Your task to perform on an android device: allow notifications from all sites in the chrome app Image 0: 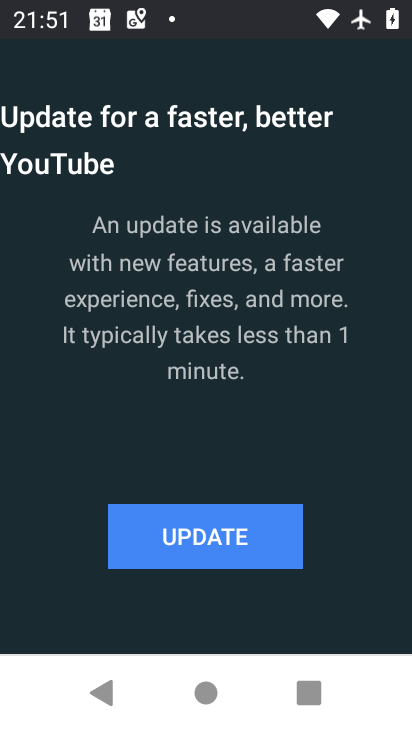
Step 0: press back button
Your task to perform on an android device: allow notifications from all sites in the chrome app Image 1: 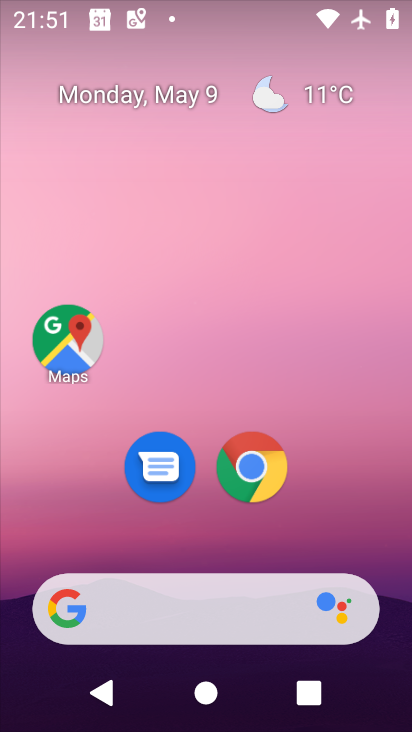
Step 1: drag from (363, 427) to (357, 109)
Your task to perform on an android device: allow notifications from all sites in the chrome app Image 2: 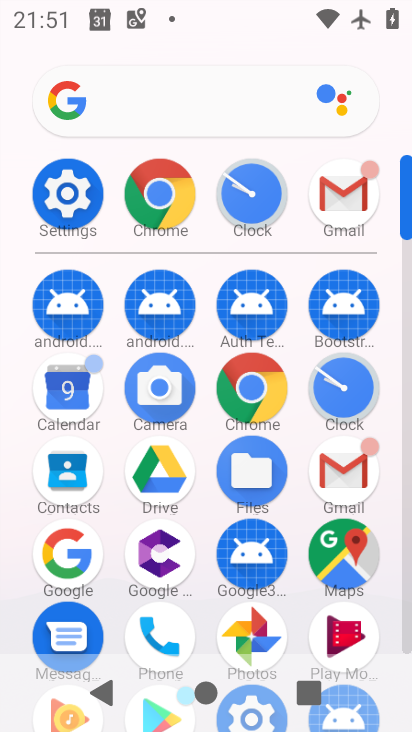
Step 2: click (168, 197)
Your task to perform on an android device: allow notifications from all sites in the chrome app Image 3: 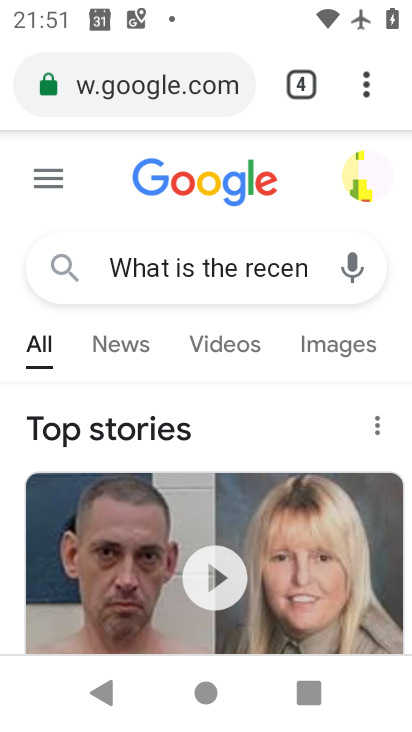
Step 3: click (355, 87)
Your task to perform on an android device: allow notifications from all sites in the chrome app Image 4: 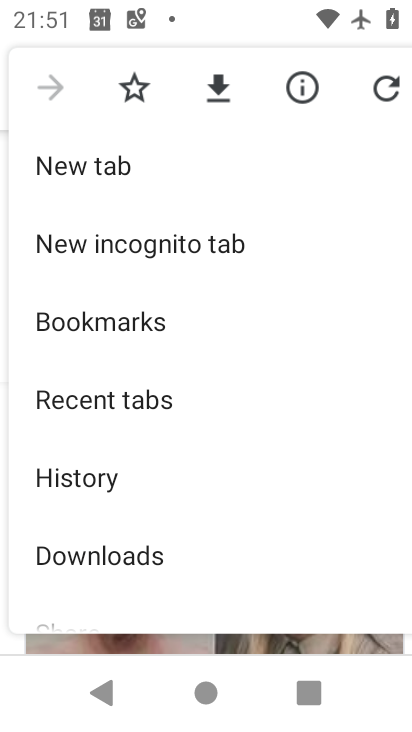
Step 4: drag from (232, 516) to (253, 184)
Your task to perform on an android device: allow notifications from all sites in the chrome app Image 5: 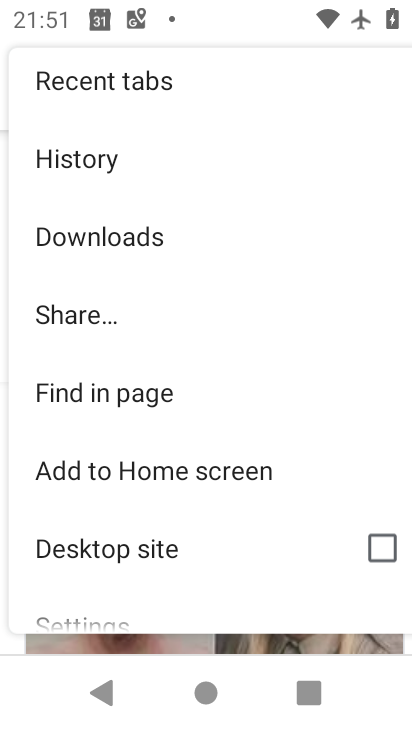
Step 5: drag from (201, 566) to (212, 351)
Your task to perform on an android device: allow notifications from all sites in the chrome app Image 6: 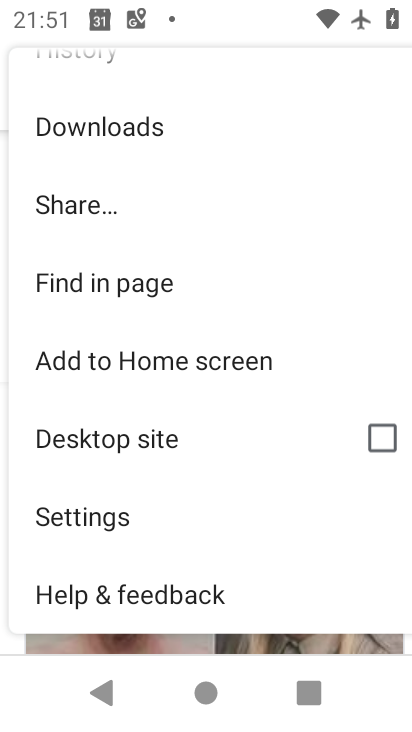
Step 6: click (90, 512)
Your task to perform on an android device: allow notifications from all sites in the chrome app Image 7: 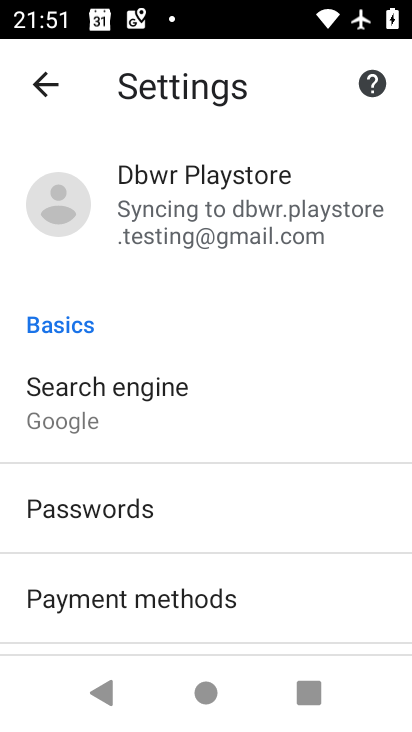
Step 7: drag from (198, 584) to (265, 248)
Your task to perform on an android device: allow notifications from all sites in the chrome app Image 8: 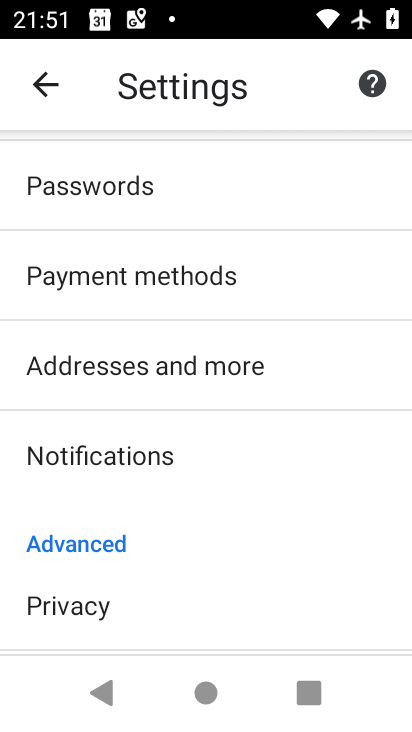
Step 8: drag from (224, 534) to (266, 275)
Your task to perform on an android device: allow notifications from all sites in the chrome app Image 9: 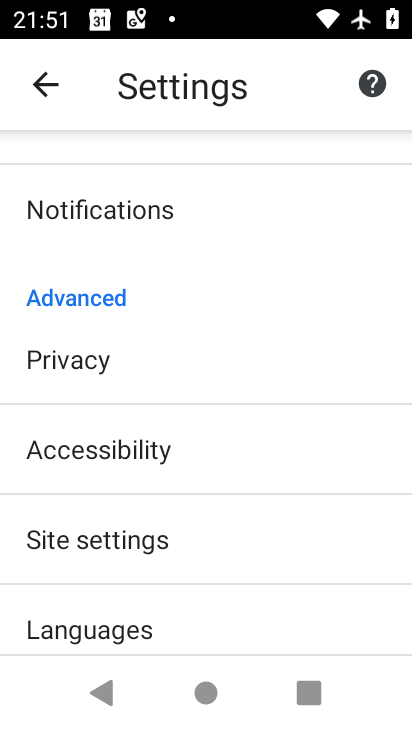
Step 9: drag from (128, 583) to (197, 320)
Your task to perform on an android device: allow notifications from all sites in the chrome app Image 10: 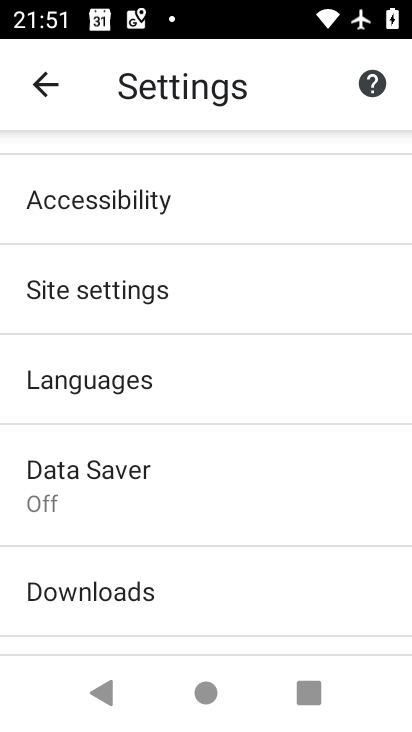
Step 10: drag from (210, 216) to (211, 470)
Your task to perform on an android device: allow notifications from all sites in the chrome app Image 11: 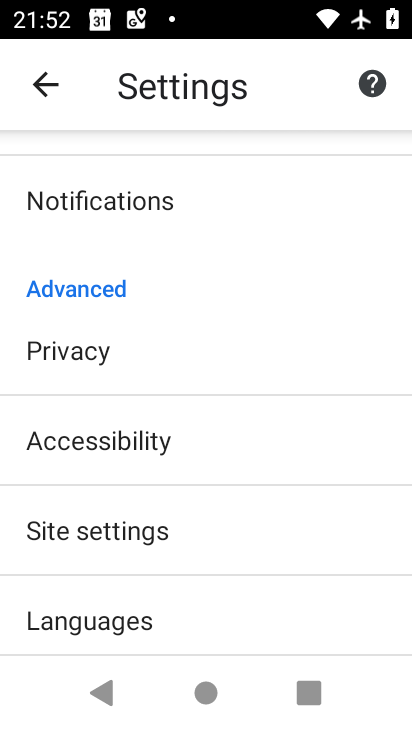
Step 11: click (188, 537)
Your task to perform on an android device: allow notifications from all sites in the chrome app Image 12: 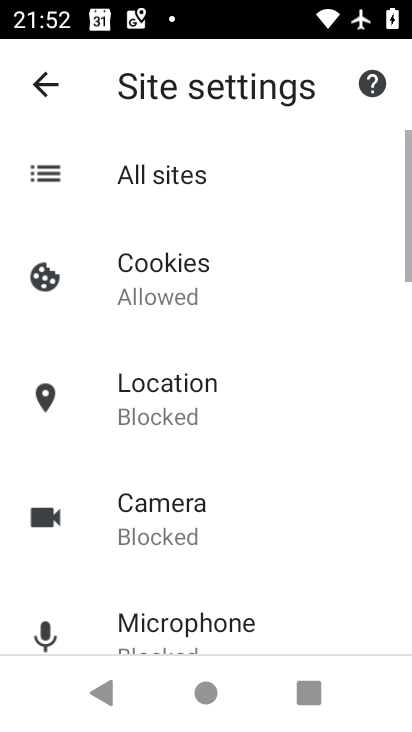
Step 12: click (218, 269)
Your task to perform on an android device: allow notifications from all sites in the chrome app Image 13: 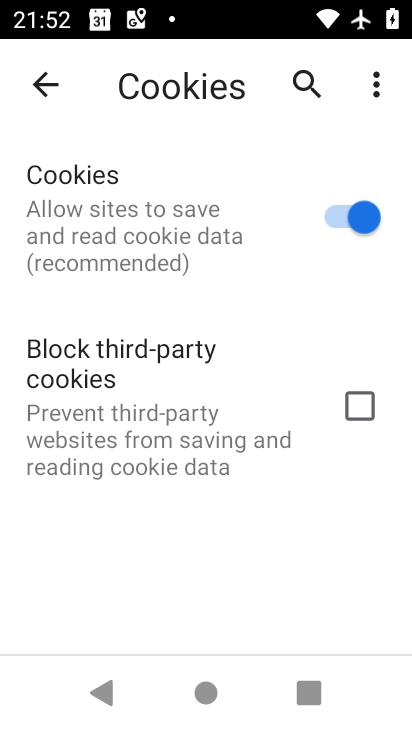
Step 13: click (33, 75)
Your task to perform on an android device: allow notifications from all sites in the chrome app Image 14: 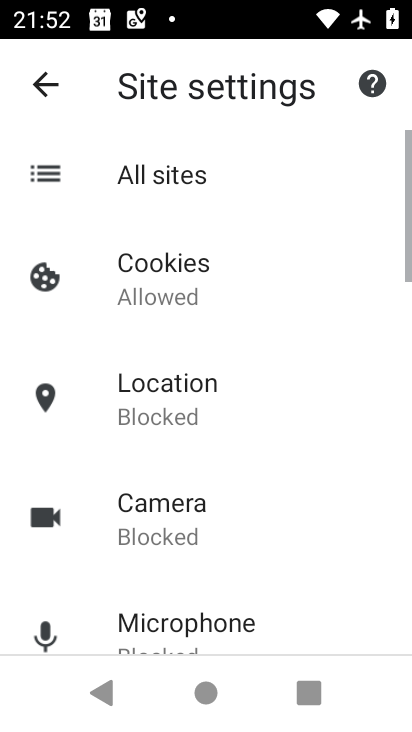
Step 14: click (211, 379)
Your task to perform on an android device: allow notifications from all sites in the chrome app Image 15: 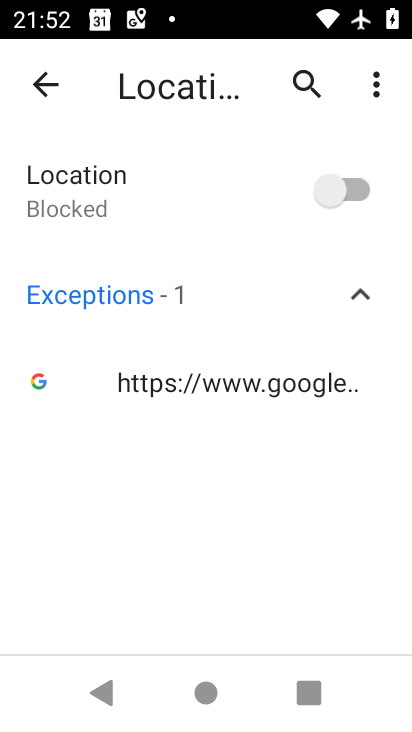
Step 15: click (351, 186)
Your task to perform on an android device: allow notifications from all sites in the chrome app Image 16: 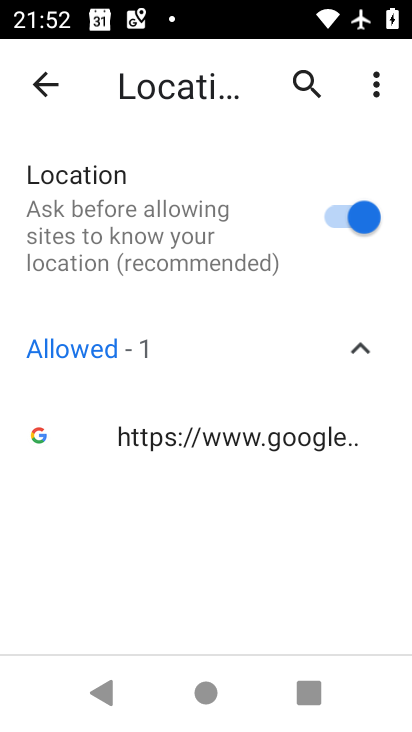
Step 16: click (54, 92)
Your task to perform on an android device: allow notifications from all sites in the chrome app Image 17: 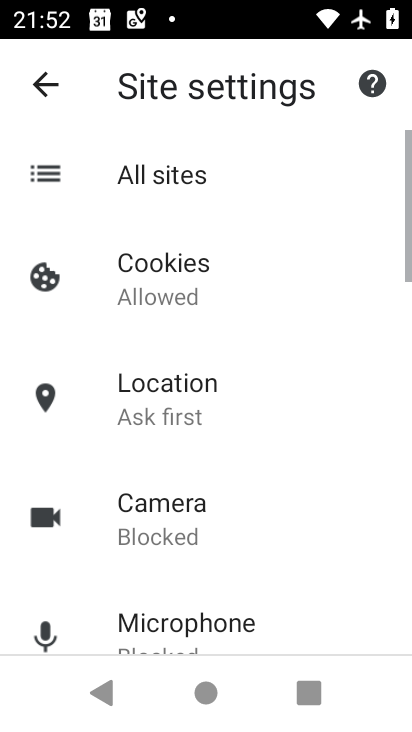
Step 17: drag from (226, 523) to (285, 310)
Your task to perform on an android device: allow notifications from all sites in the chrome app Image 18: 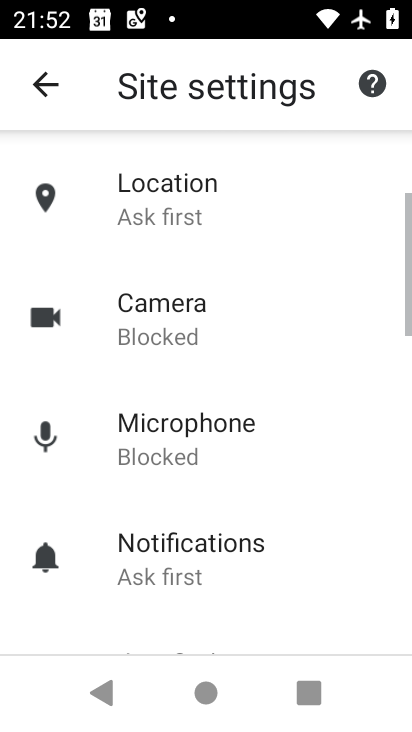
Step 18: click (237, 313)
Your task to perform on an android device: allow notifications from all sites in the chrome app Image 19: 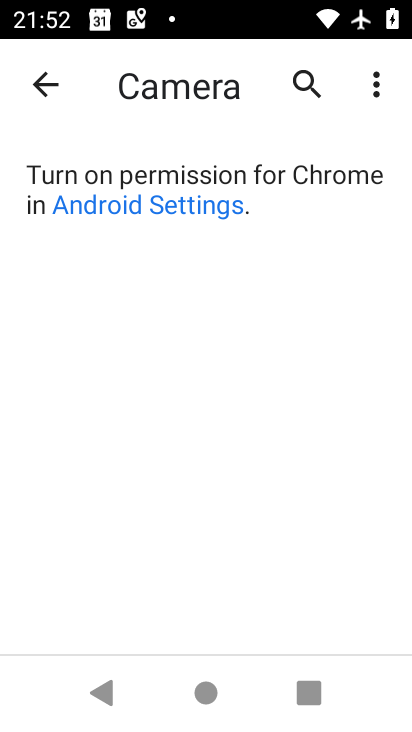
Step 19: click (34, 84)
Your task to perform on an android device: allow notifications from all sites in the chrome app Image 20: 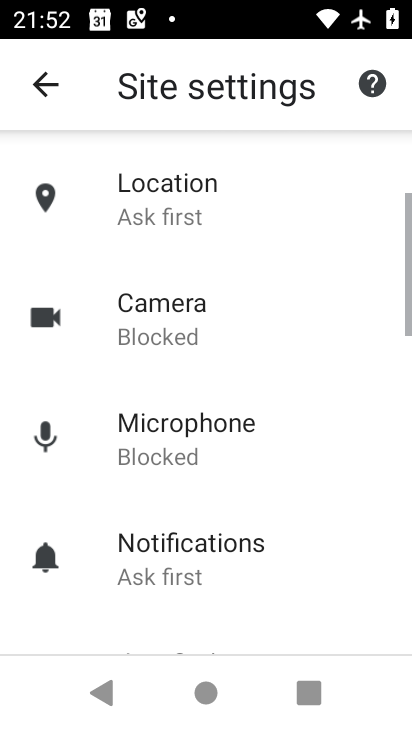
Step 20: click (225, 458)
Your task to perform on an android device: allow notifications from all sites in the chrome app Image 21: 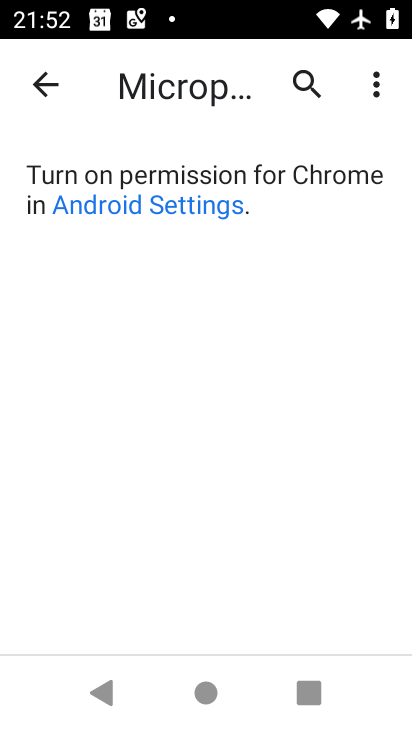
Step 21: click (27, 85)
Your task to perform on an android device: allow notifications from all sites in the chrome app Image 22: 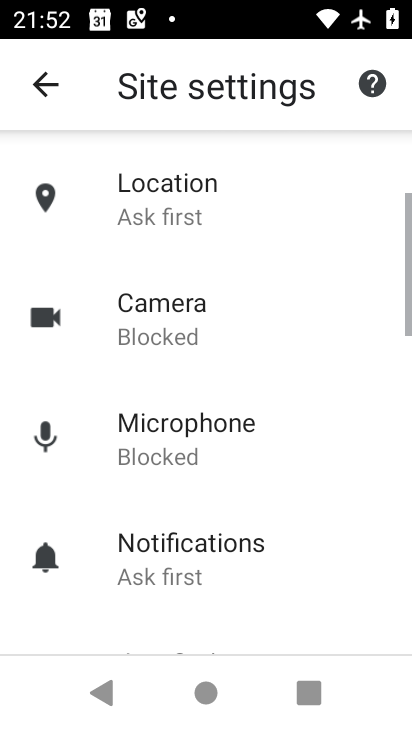
Step 22: drag from (218, 560) to (275, 311)
Your task to perform on an android device: allow notifications from all sites in the chrome app Image 23: 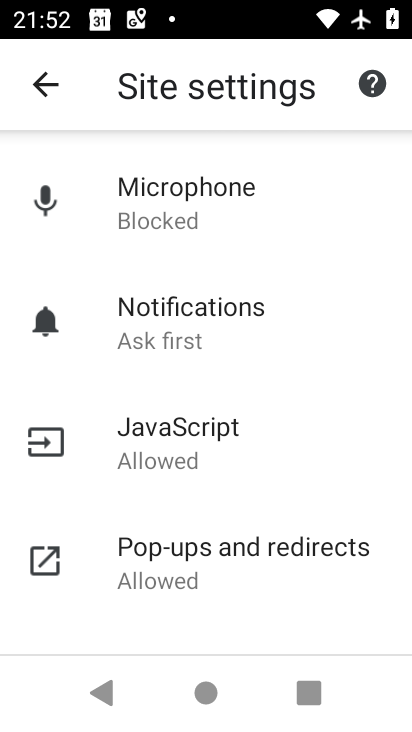
Step 23: click (121, 323)
Your task to perform on an android device: allow notifications from all sites in the chrome app Image 24: 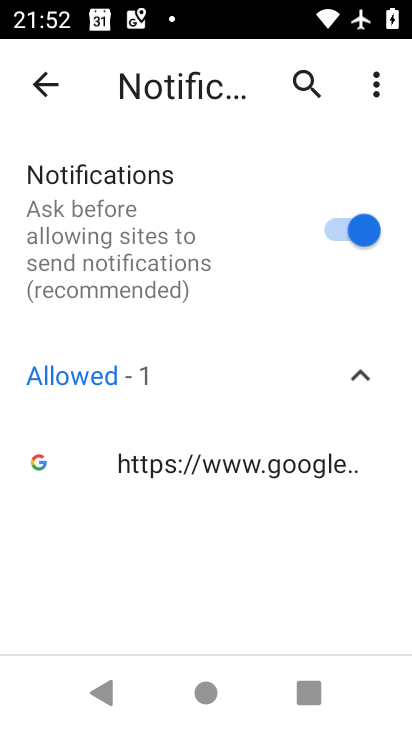
Step 24: click (40, 96)
Your task to perform on an android device: allow notifications from all sites in the chrome app Image 25: 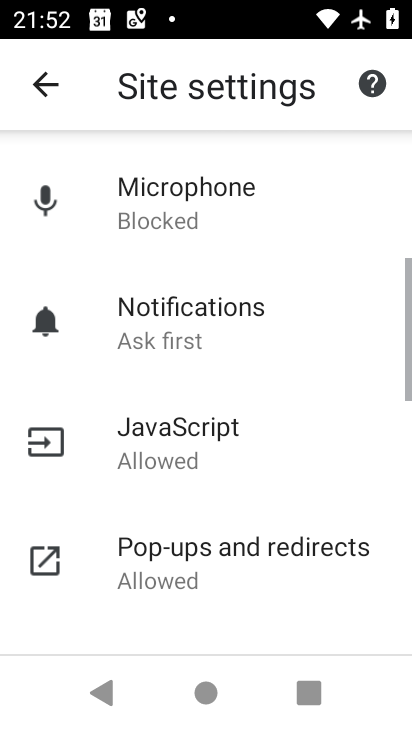
Step 25: click (202, 447)
Your task to perform on an android device: allow notifications from all sites in the chrome app Image 26: 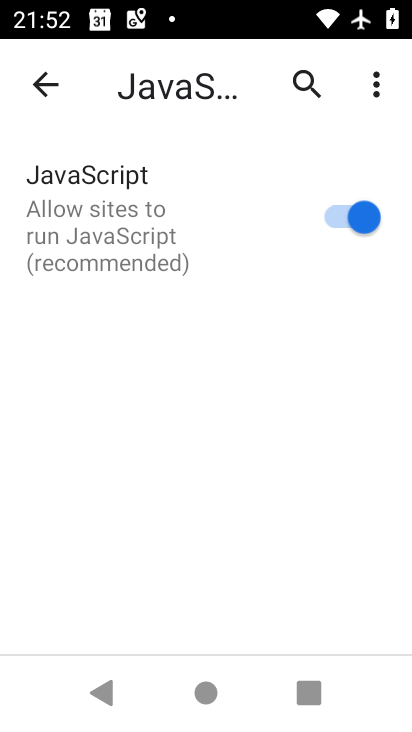
Step 26: click (50, 77)
Your task to perform on an android device: allow notifications from all sites in the chrome app Image 27: 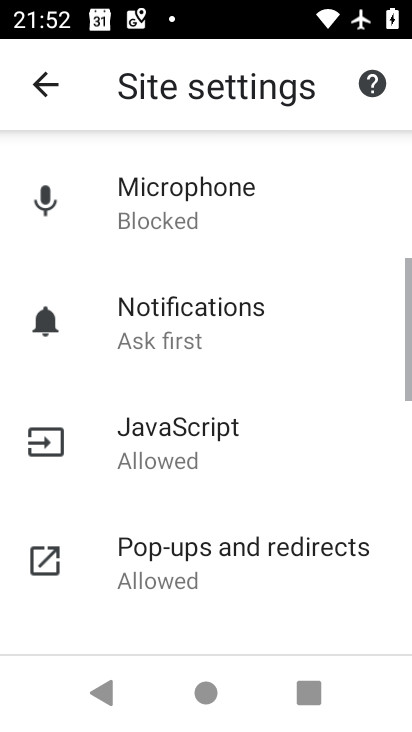
Step 27: drag from (242, 575) to (255, 301)
Your task to perform on an android device: allow notifications from all sites in the chrome app Image 28: 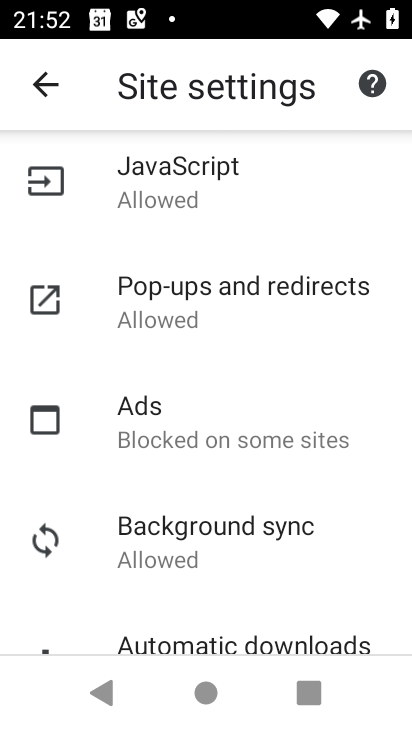
Step 28: click (144, 319)
Your task to perform on an android device: allow notifications from all sites in the chrome app Image 29: 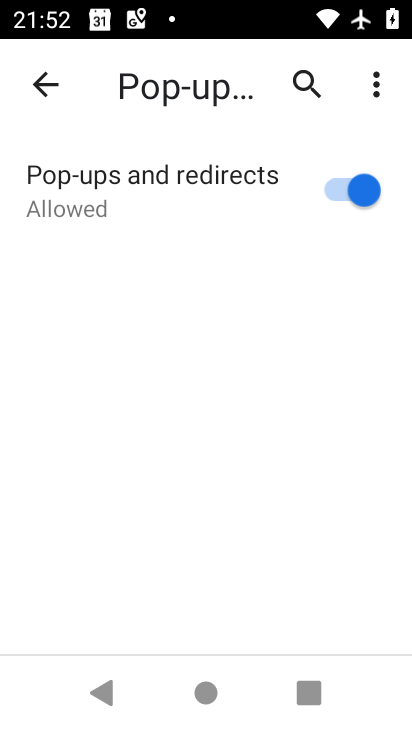
Step 29: click (37, 85)
Your task to perform on an android device: allow notifications from all sites in the chrome app Image 30: 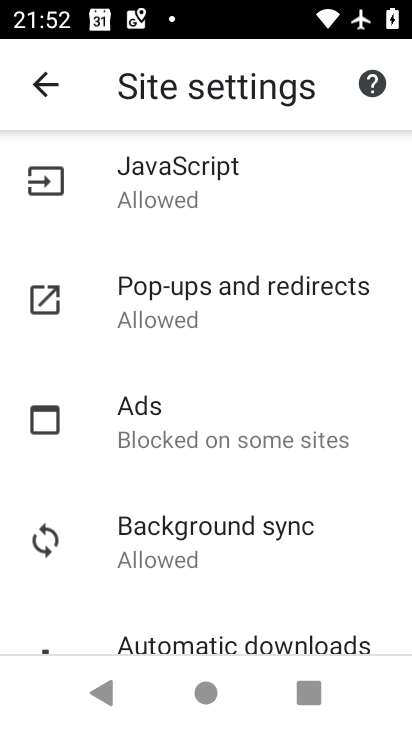
Step 30: click (226, 439)
Your task to perform on an android device: allow notifications from all sites in the chrome app Image 31: 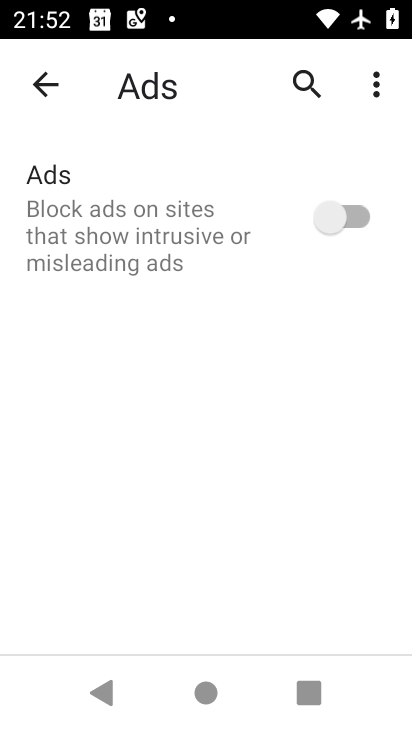
Step 31: click (353, 228)
Your task to perform on an android device: allow notifications from all sites in the chrome app Image 32: 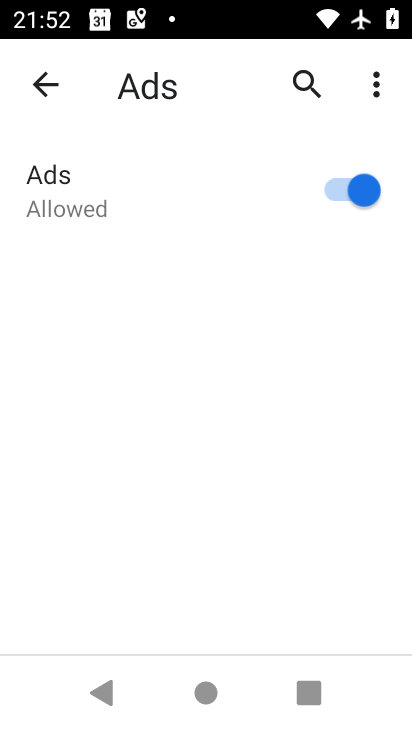
Step 32: click (44, 88)
Your task to perform on an android device: allow notifications from all sites in the chrome app Image 33: 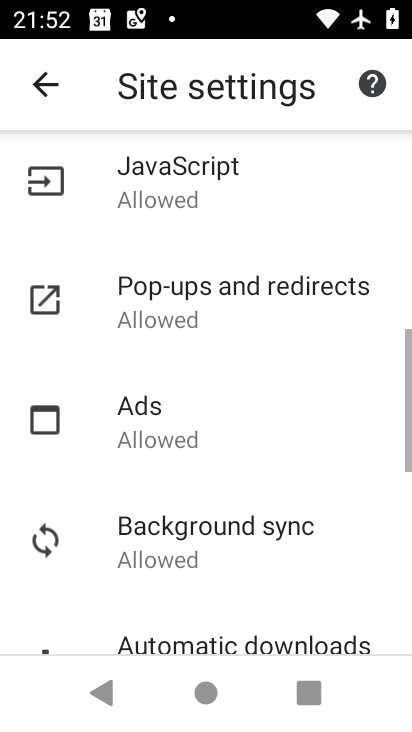
Step 33: drag from (206, 537) to (251, 338)
Your task to perform on an android device: allow notifications from all sites in the chrome app Image 34: 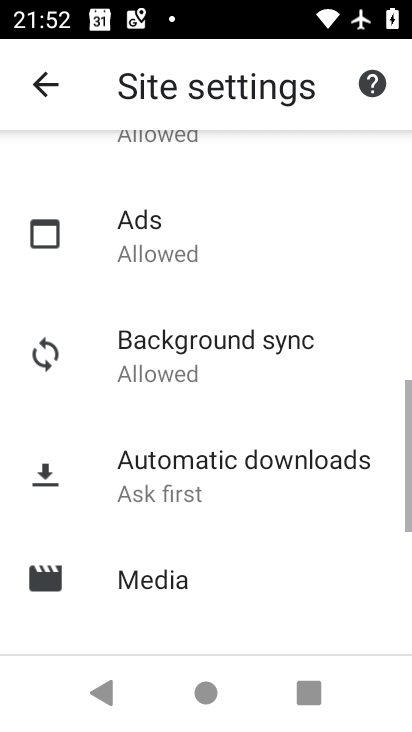
Step 34: click (215, 361)
Your task to perform on an android device: allow notifications from all sites in the chrome app Image 35: 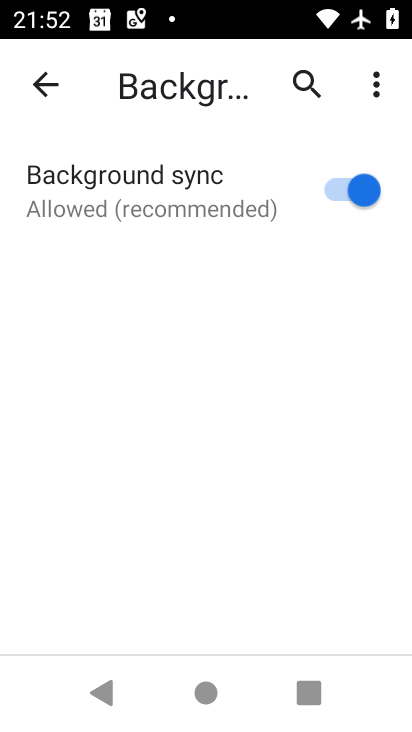
Step 35: click (29, 85)
Your task to perform on an android device: allow notifications from all sites in the chrome app Image 36: 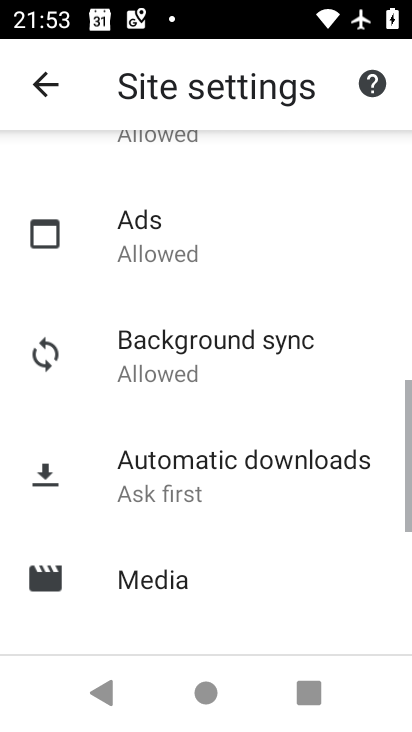
Step 36: click (205, 483)
Your task to perform on an android device: allow notifications from all sites in the chrome app Image 37: 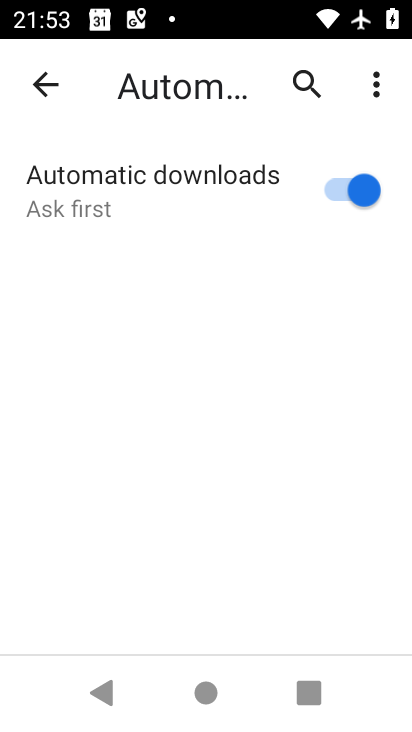
Step 37: click (48, 90)
Your task to perform on an android device: allow notifications from all sites in the chrome app Image 38: 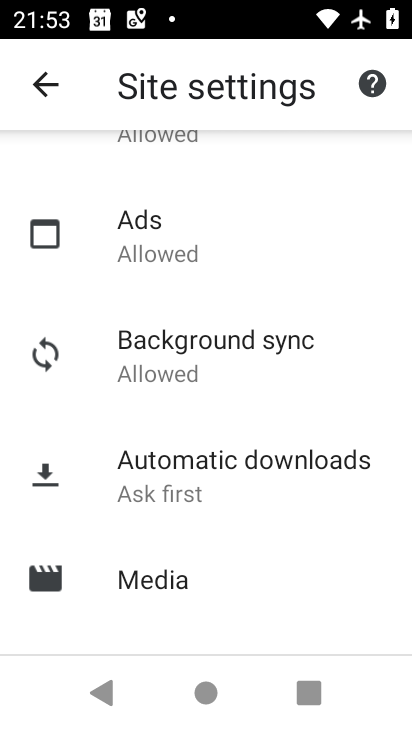
Step 38: click (190, 588)
Your task to perform on an android device: allow notifications from all sites in the chrome app Image 39: 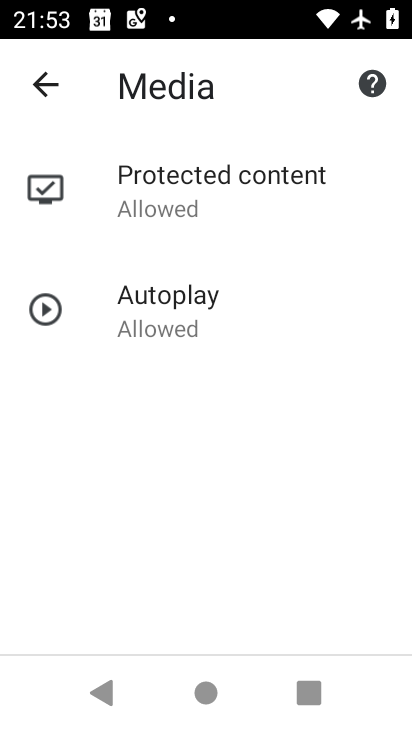
Step 39: click (38, 74)
Your task to perform on an android device: allow notifications from all sites in the chrome app Image 40: 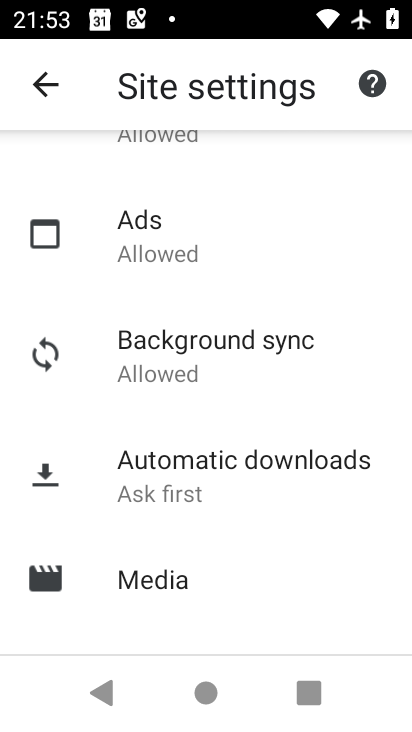
Step 40: task complete